Your task to perform on an android device: See recent photos Image 0: 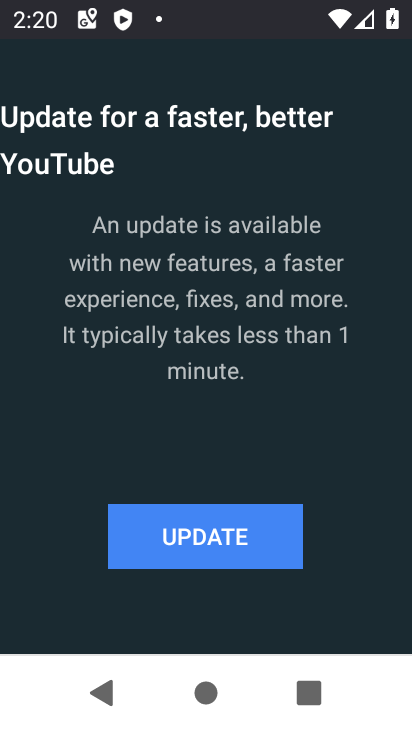
Step 0: press home button
Your task to perform on an android device: See recent photos Image 1: 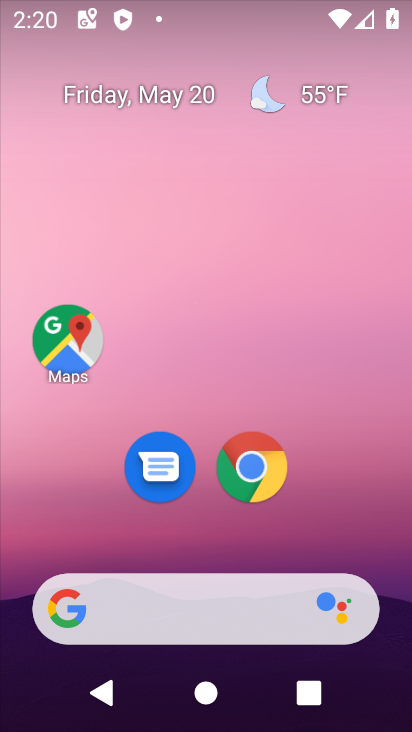
Step 1: drag from (232, 533) to (242, 30)
Your task to perform on an android device: See recent photos Image 2: 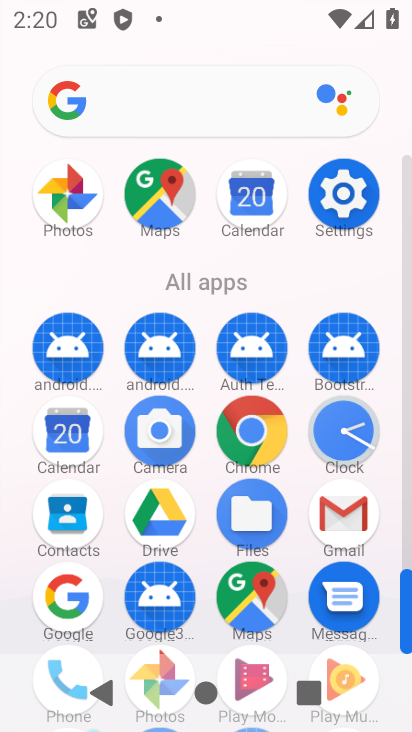
Step 2: click (52, 198)
Your task to perform on an android device: See recent photos Image 3: 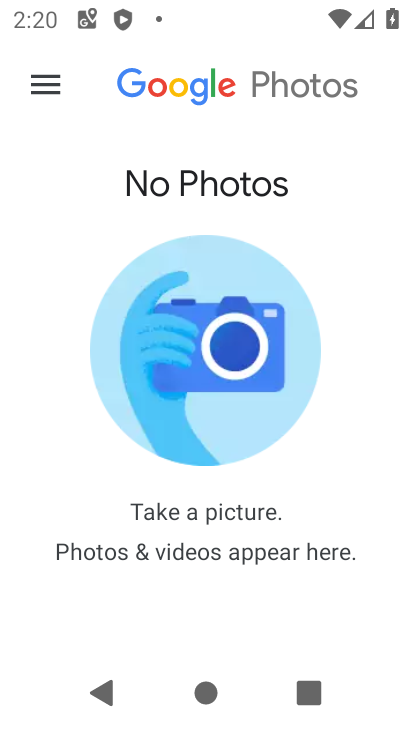
Step 3: click (46, 103)
Your task to perform on an android device: See recent photos Image 4: 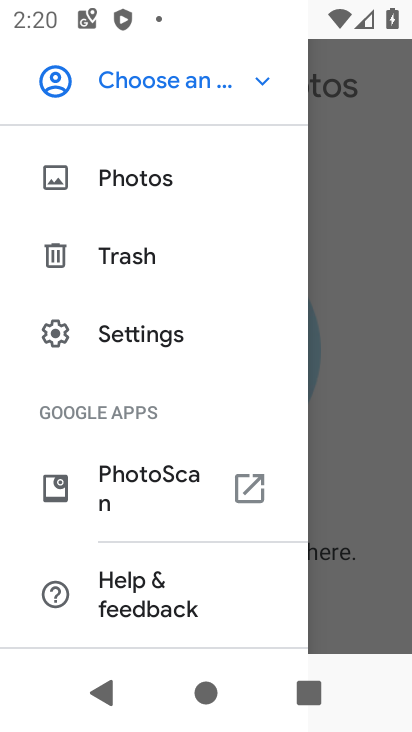
Step 4: click (121, 166)
Your task to perform on an android device: See recent photos Image 5: 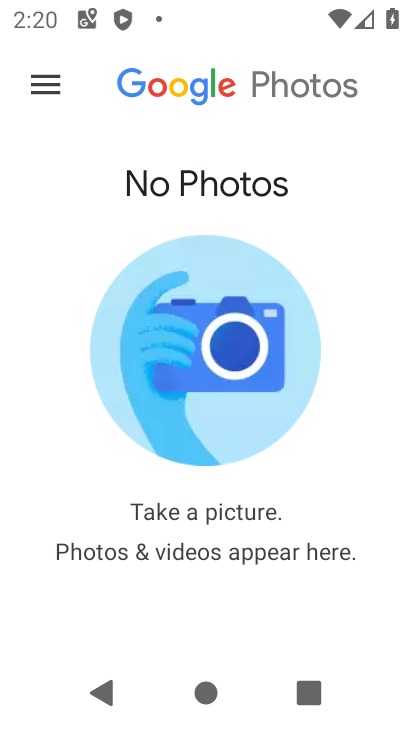
Step 5: task complete